Your task to perform on an android device: star an email in the gmail app Image 0: 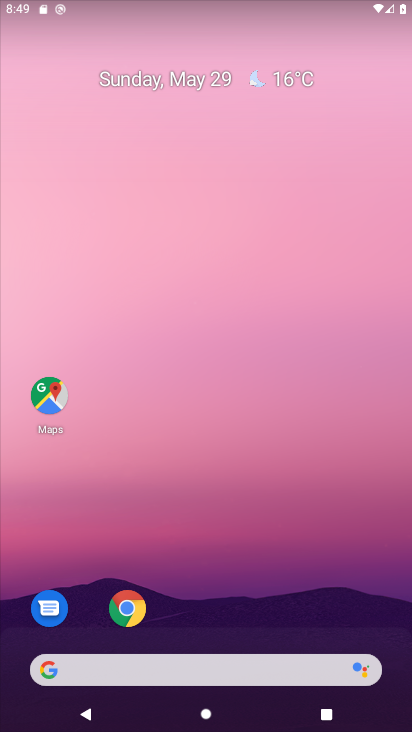
Step 0: drag from (234, 613) to (238, 4)
Your task to perform on an android device: star an email in the gmail app Image 1: 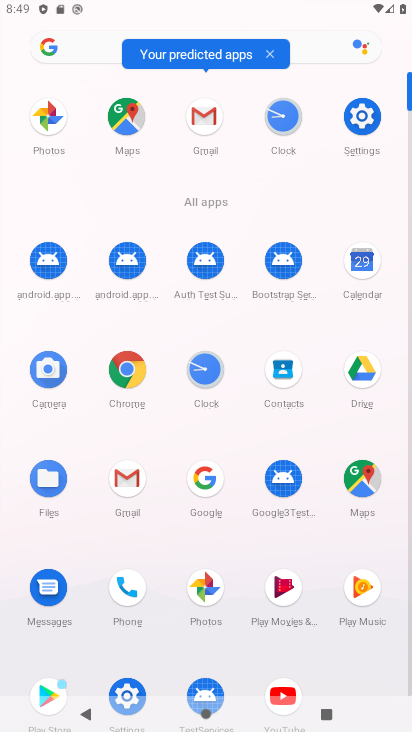
Step 1: click (197, 109)
Your task to perform on an android device: star an email in the gmail app Image 2: 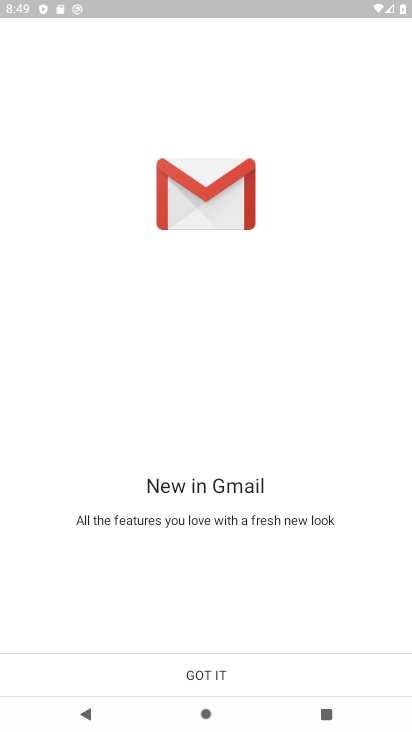
Step 2: click (208, 679)
Your task to perform on an android device: star an email in the gmail app Image 3: 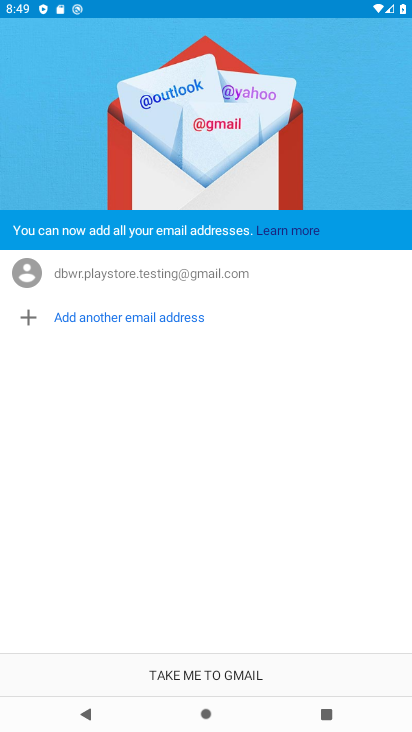
Step 3: click (208, 679)
Your task to perform on an android device: star an email in the gmail app Image 4: 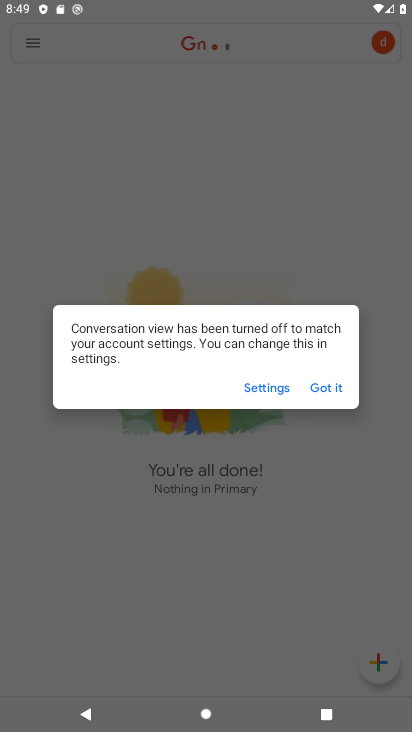
Step 4: click (321, 395)
Your task to perform on an android device: star an email in the gmail app Image 5: 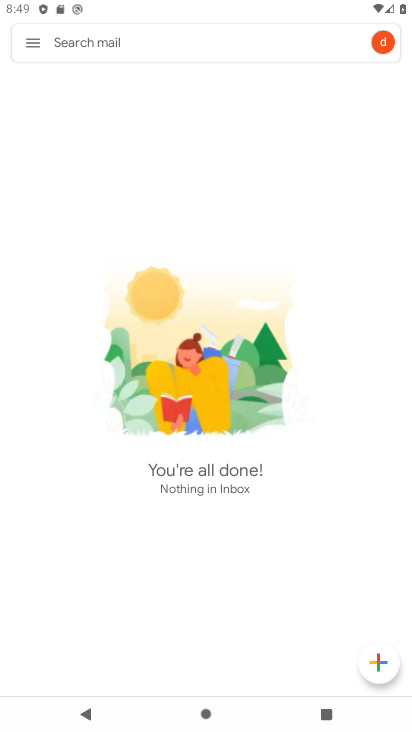
Step 5: click (24, 43)
Your task to perform on an android device: star an email in the gmail app Image 6: 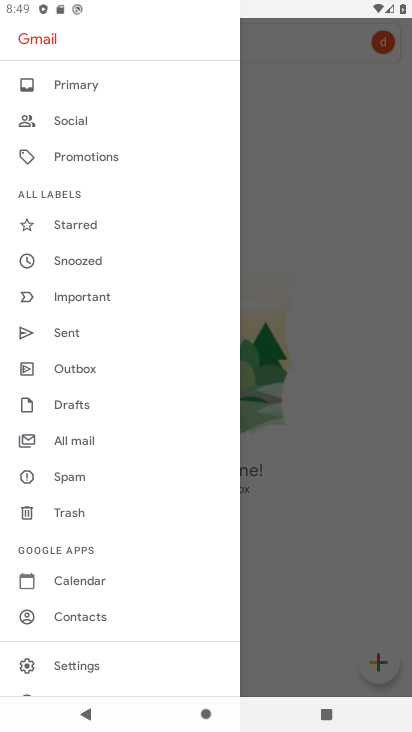
Step 6: press back button
Your task to perform on an android device: star an email in the gmail app Image 7: 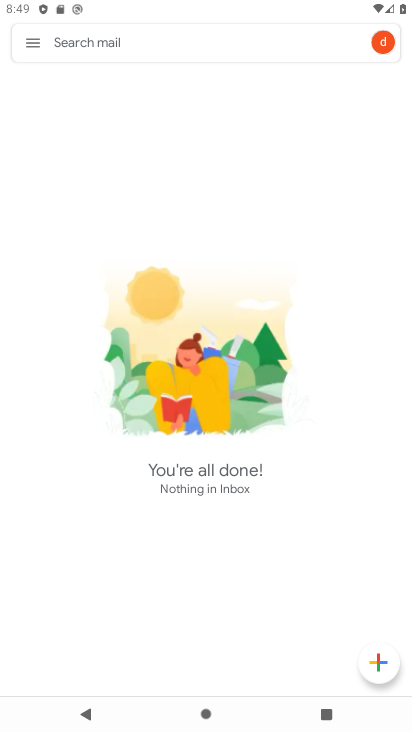
Step 7: click (27, 41)
Your task to perform on an android device: star an email in the gmail app Image 8: 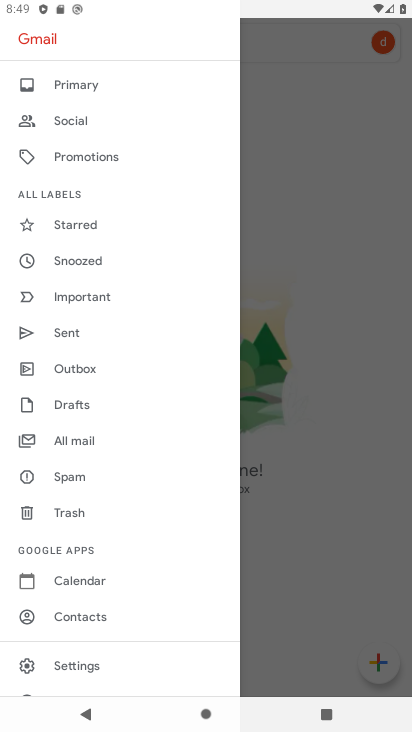
Step 8: click (98, 442)
Your task to perform on an android device: star an email in the gmail app Image 9: 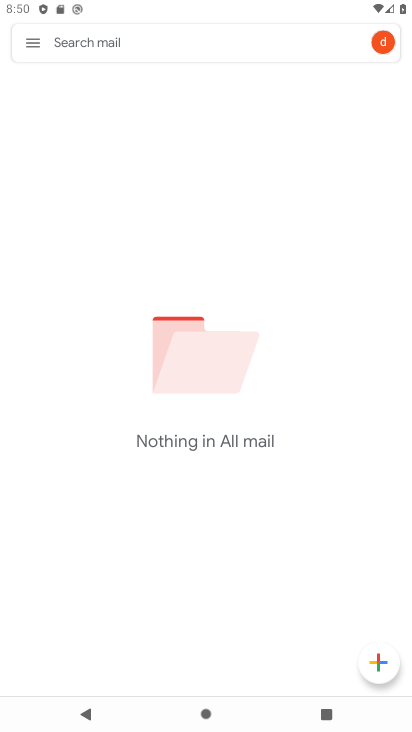
Step 9: task complete